Your task to perform on an android device: Open network settings Image 0: 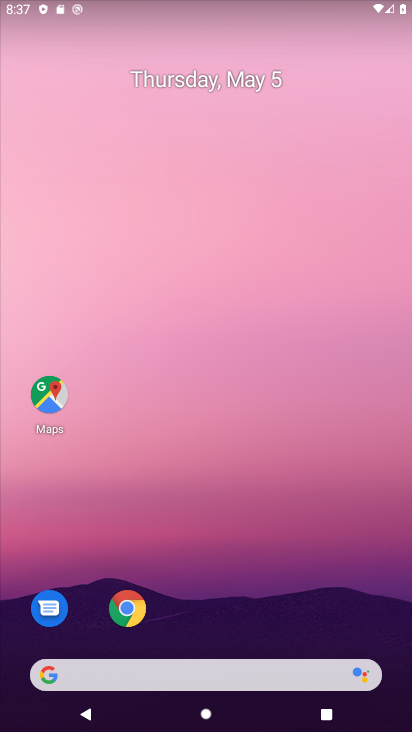
Step 0: drag from (339, 653) to (287, 12)
Your task to perform on an android device: Open network settings Image 1: 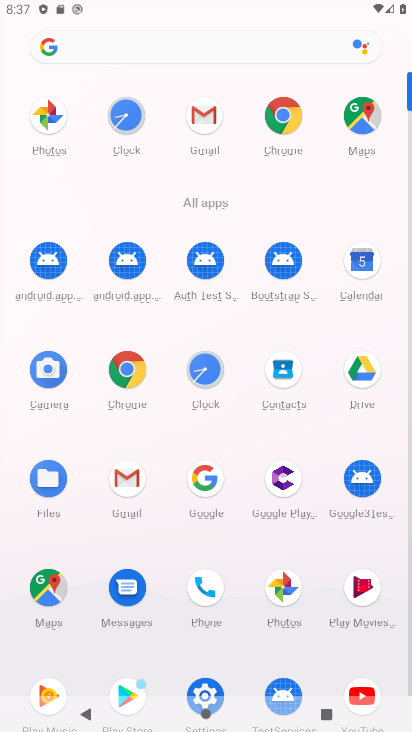
Step 1: drag from (321, 649) to (307, 212)
Your task to perform on an android device: Open network settings Image 2: 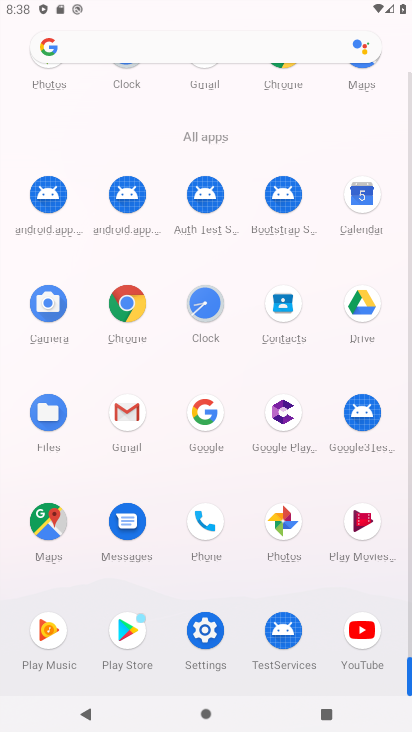
Step 2: click (209, 636)
Your task to perform on an android device: Open network settings Image 3: 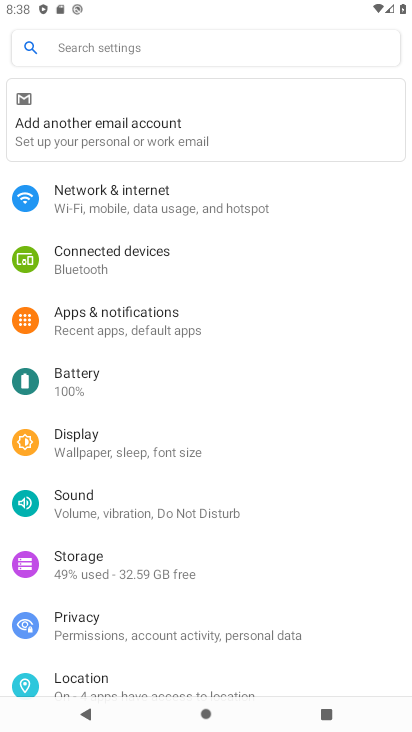
Step 3: click (139, 196)
Your task to perform on an android device: Open network settings Image 4: 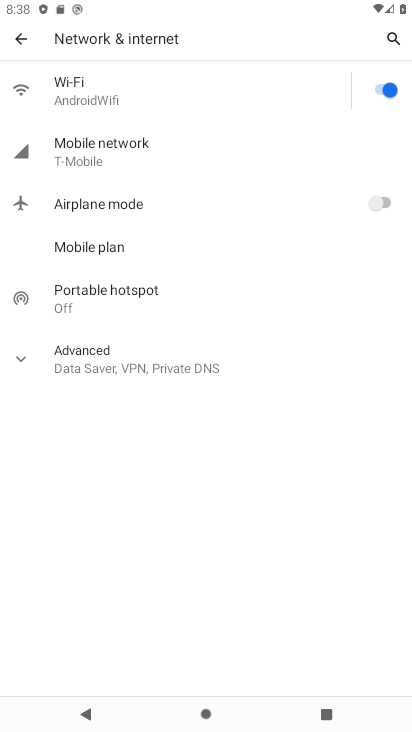
Step 4: click (130, 148)
Your task to perform on an android device: Open network settings Image 5: 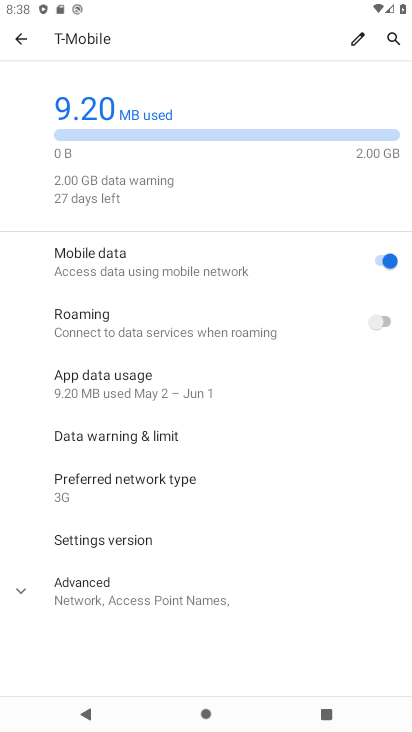
Step 5: task complete